Your task to perform on an android device: move a message to another label in the gmail app Image 0: 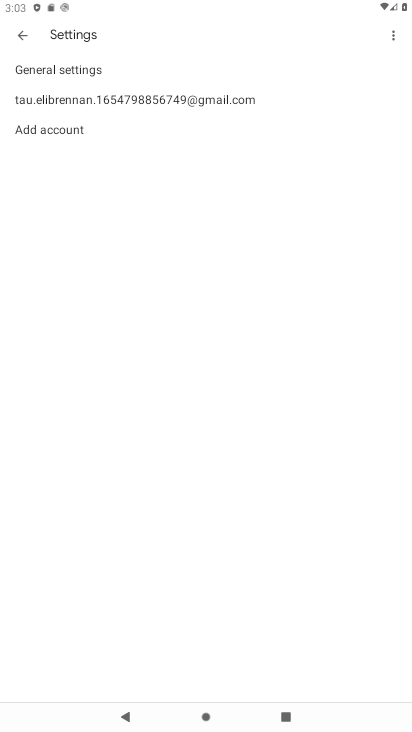
Step 0: drag from (234, 609) to (269, 47)
Your task to perform on an android device: move a message to another label in the gmail app Image 1: 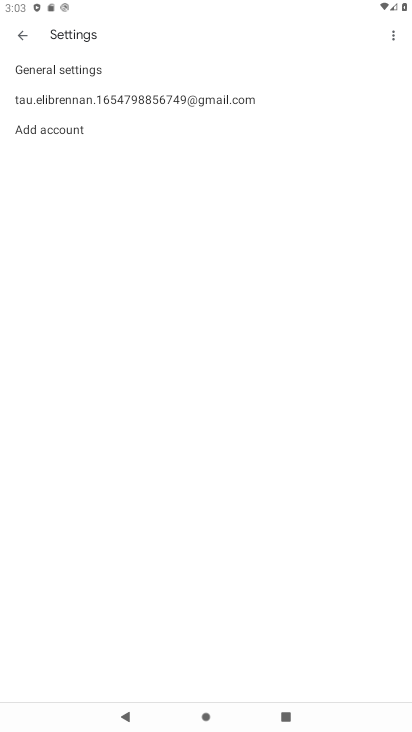
Step 1: click (25, 33)
Your task to perform on an android device: move a message to another label in the gmail app Image 2: 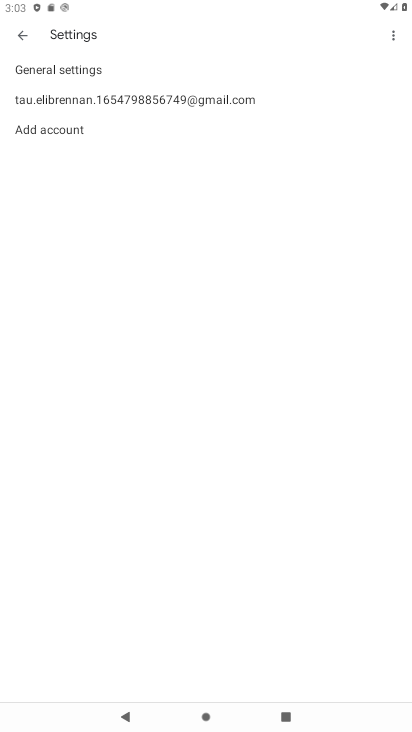
Step 2: click (21, 36)
Your task to perform on an android device: move a message to another label in the gmail app Image 3: 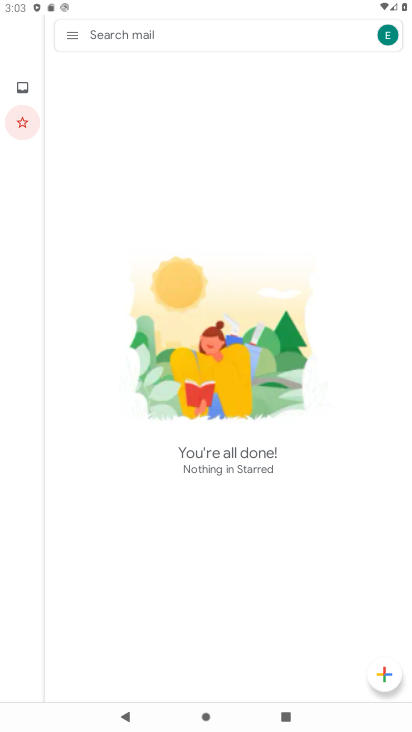
Step 3: task complete